Your task to perform on an android device: turn on data saver in the chrome app Image 0: 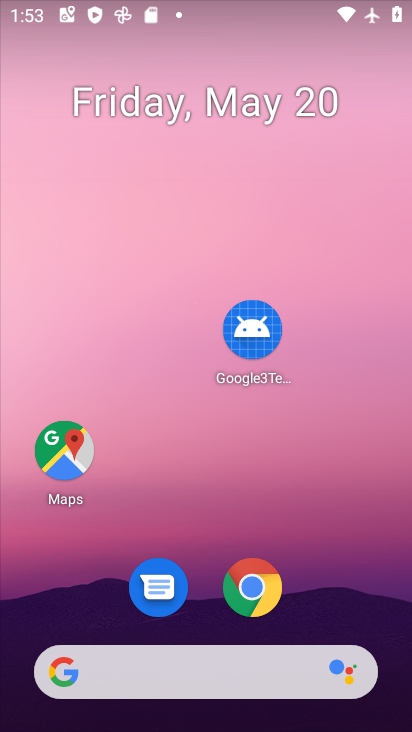
Step 0: press home button
Your task to perform on an android device: turn on data saver in the chrome app Image 1: 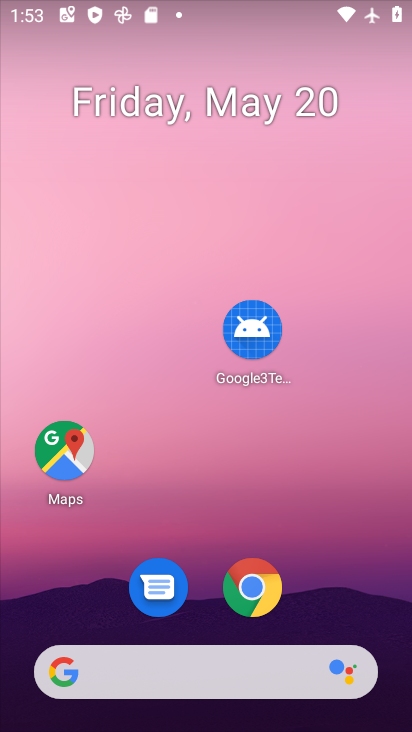
Step 1: click (255, 594)
Your task to perform on an android device: turn on data saver in the chrome app Image 2: 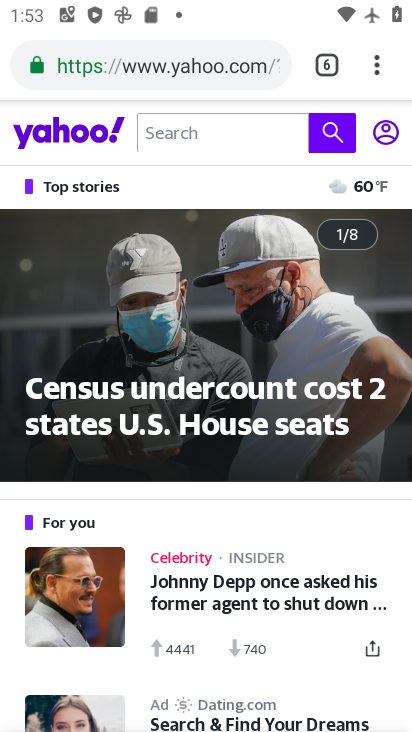
Step 2: click (377, 55)
Your task to perform on an android device: turn on data saver in the chrome app Image 3: 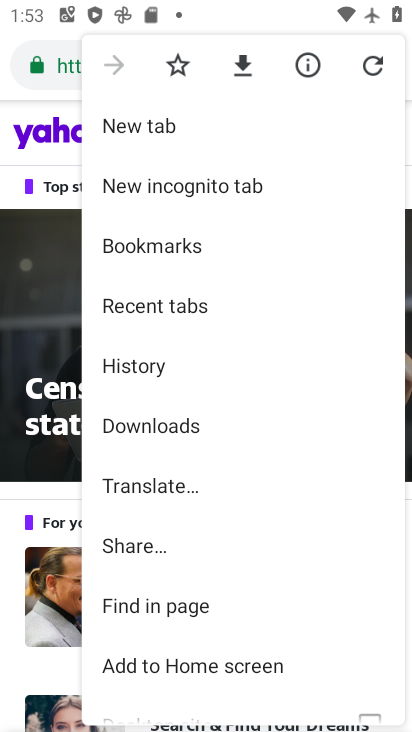
Step 3: drag from (251, 597) to (232, 322)
Your task to perform on an android device: turn on data saver in the chrome app Image 4: 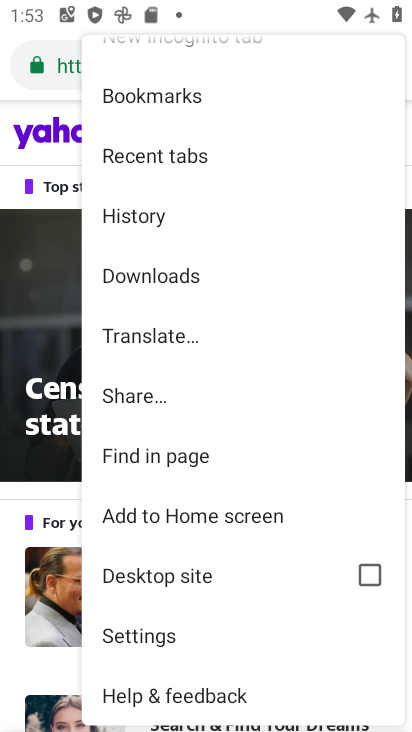
Step 4: click (140, 632)
Your task to perform on an android device: turn on data saver in the chrome app Image 5: 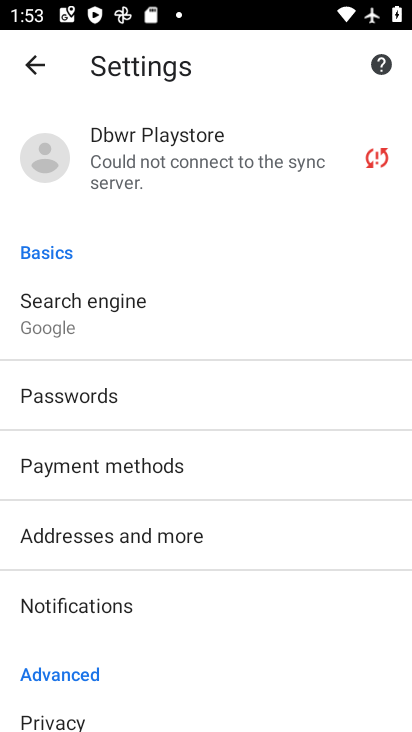
Step 5: drag from (289, 510) to (269, 214)
Your task to perform on an android device: turn on data saver in the chrome app Image 6: 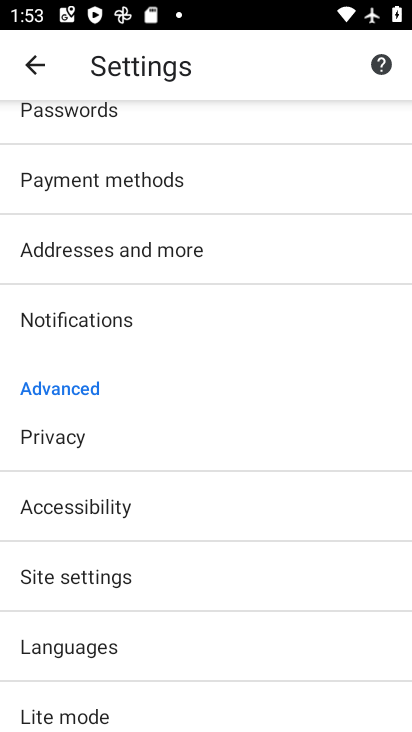
Step 6: drag from (306, 540) to (261, 190)
Your task to perform on an android device: turn on data saver in the chrome app Image 7: 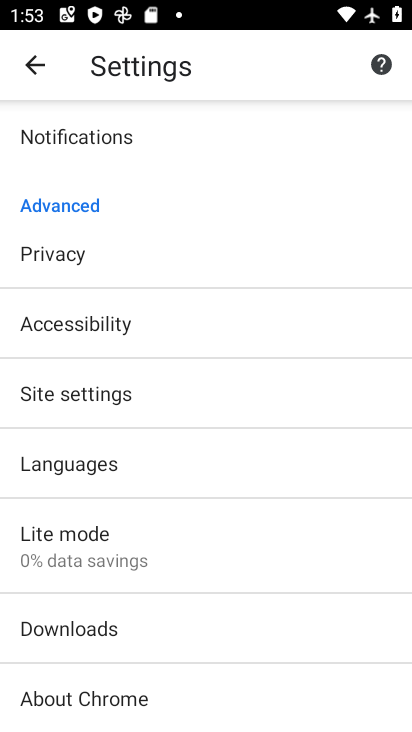
Step 7: click (62, 539)
Your task to perform on an android device: turn on data saver in the chrome app Image 8: 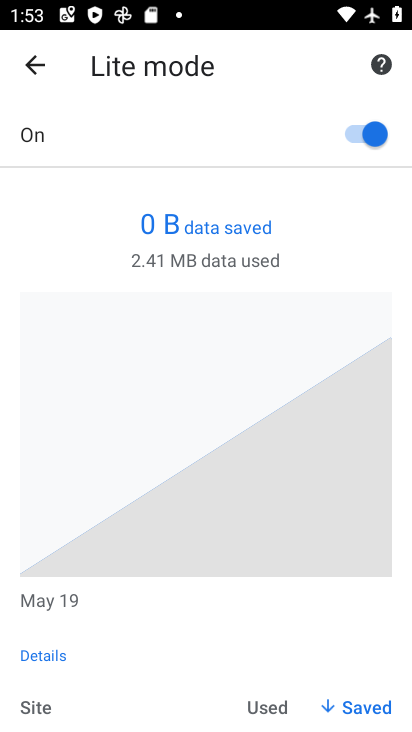
Step 8: task complete